Your task to perform on an android device: set default search engine in the chrome app Image 0: 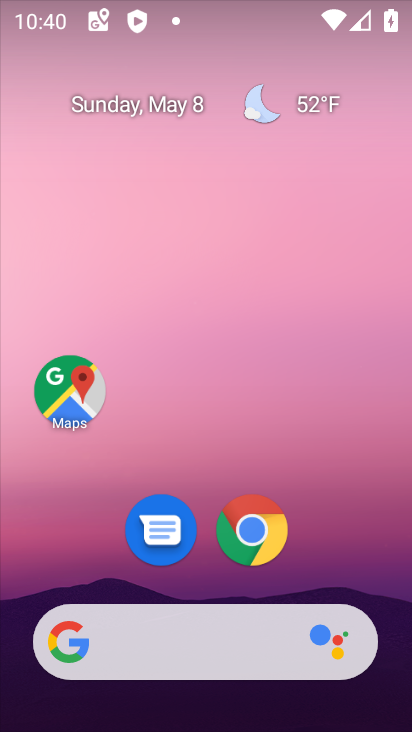
Step 0: drag from (359, 554) to (354, 49)
Your task to perform on an android device: set default search engine in the chrome app Image 1: 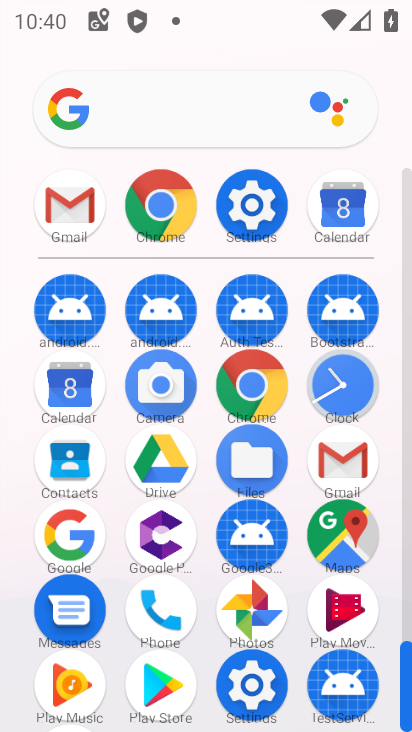
Step 1: click (245, 394)
Your task to perform on an android device: set default search engine in the chrome app Image 2: 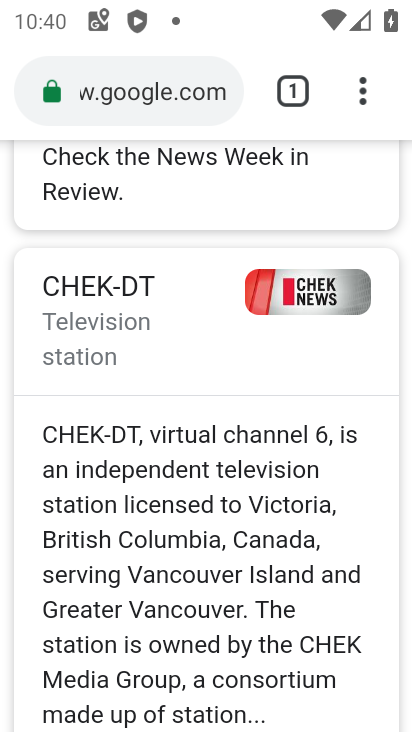
Step 2: drag from (369, 108) to (158, 537)
Your task to perform on an android device: set default search engine in the chrome app Image 3: 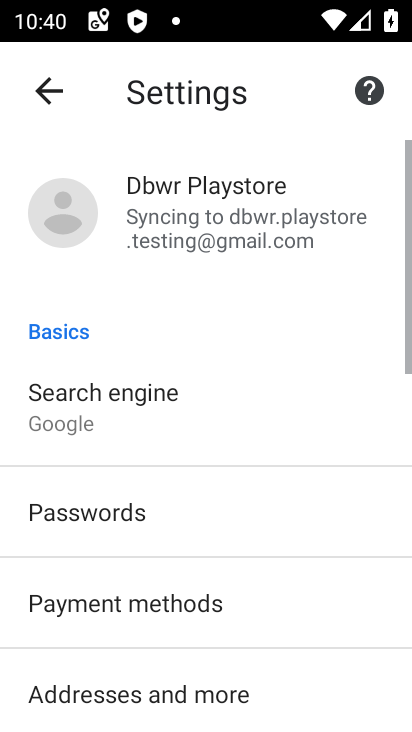
Step 3: click (93, 406)
Your task to perform on an android device: set default search engine in the chrome app Image 4: 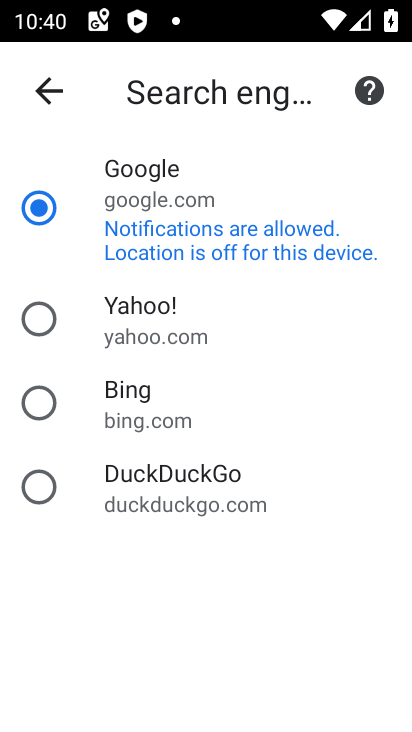
Step 4: click (20, 317)
Your task to perform on an android device: set default search engine in the chrome app Image 5: 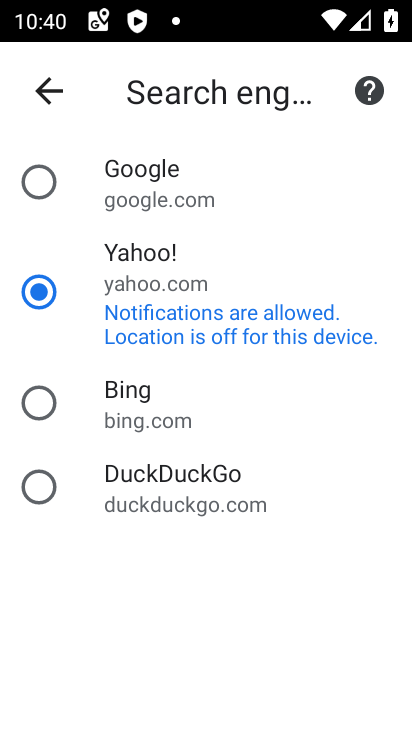
Step 5: task complete